Your task to perform on an android device: delete browsing data in the chrome app Image 0: 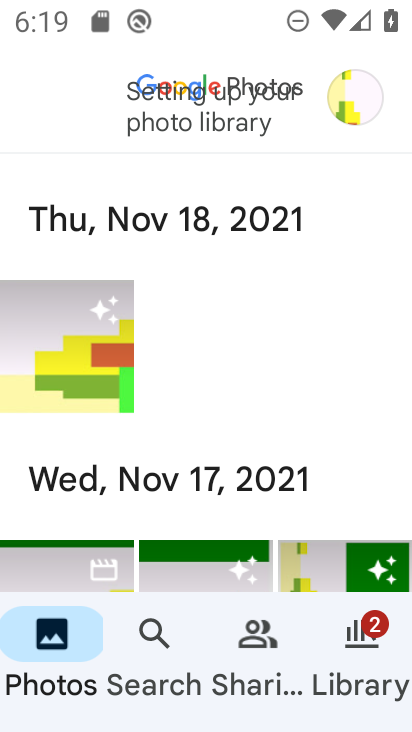
Step 0: press home button
Your task to perform on an android device: delete browsing data in the chrome app Image 1: 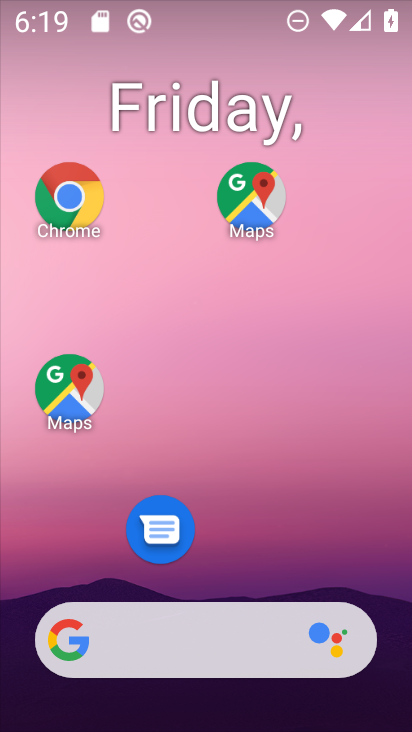
Step 1: click (56, 204)
Your task to perform on an android device: delete browsing data in the chrome app Image 2: 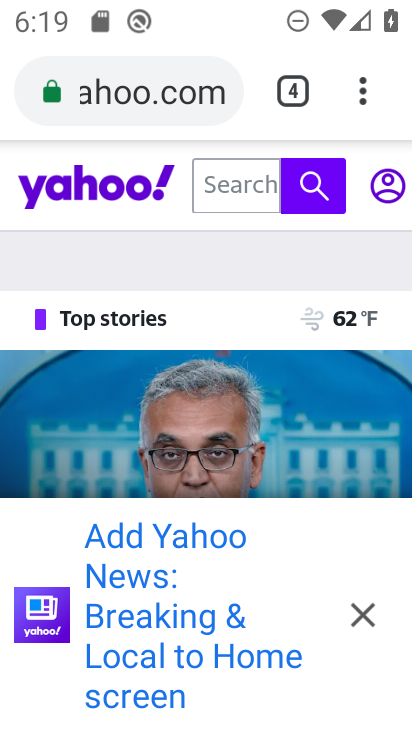
Step 2: click (68, 203)
Your task to perform on an android device: delete browsing data in the chrome app Image 3: 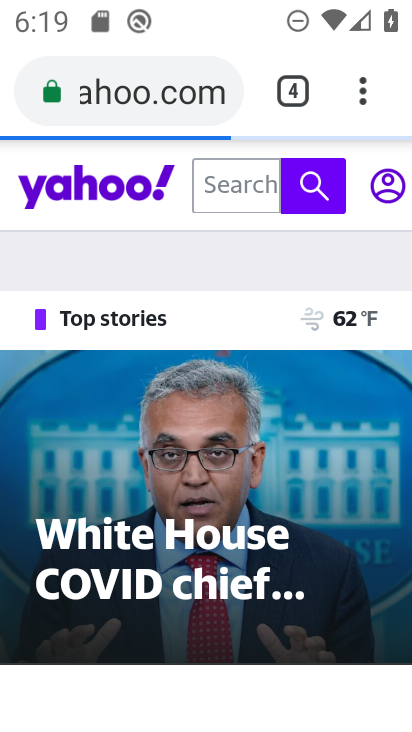
Step 3: click (359, 89)
Your task to perform on an android device: delete browsing data in the chrome app Image 4: 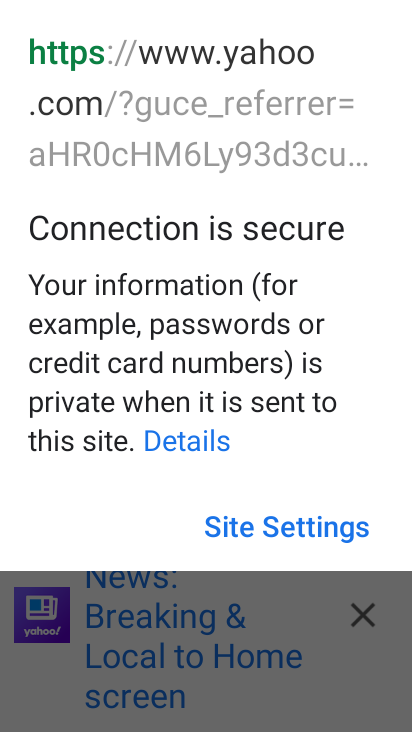
Step 4: click (214, 599)
Your task to perform on an android device: delete browsing data in the chrome app Image 5: 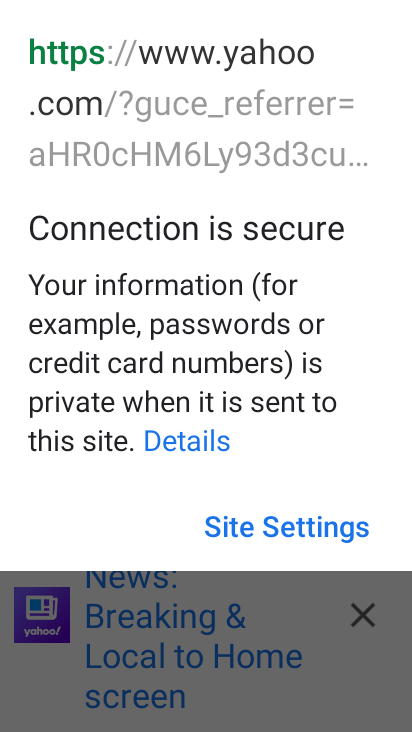
Step 5: click (324, 669)
Your task to perform on an android device: delete browsing data in the chrome app Image 6: 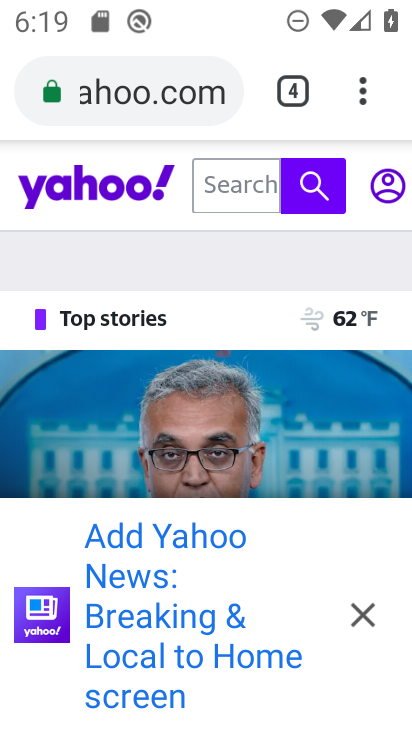
Step 6: click (362, 98)
Your task to perform on an android device: delete browsing data in the chrome app Image 7: 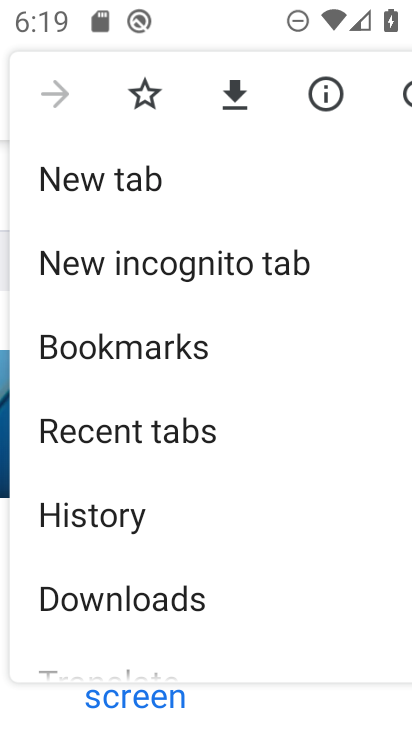
Step 7: drag from (228, 620) to (205, 263)
Your task to perform on an android device: delete browsing data in the chrome app Image 8: 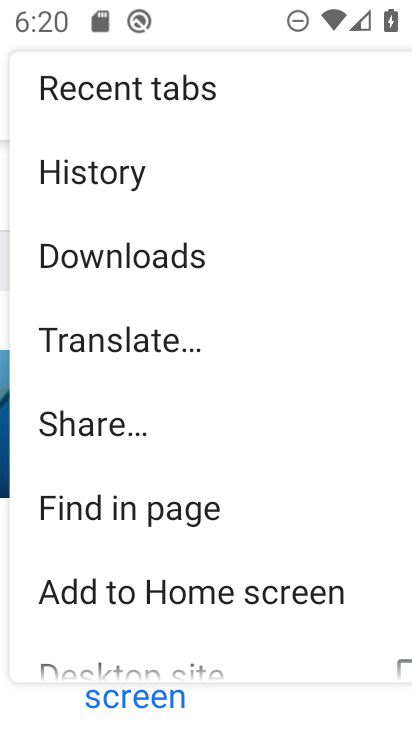
Step 8: drag from (249, 629) to (245, 221)
Your task to perform on an android device: delete browsing data in the chrome app Image 9: 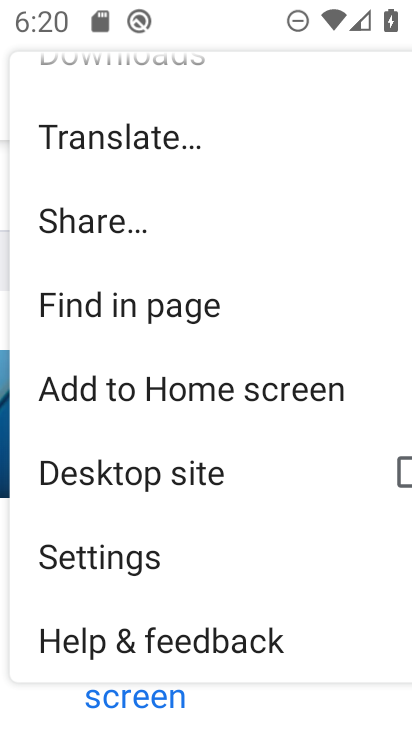
Step 9: drag from (210, 224) to (182, 595)
Your task to perform on an android device: delete browsing data in the chrome app Image 10: 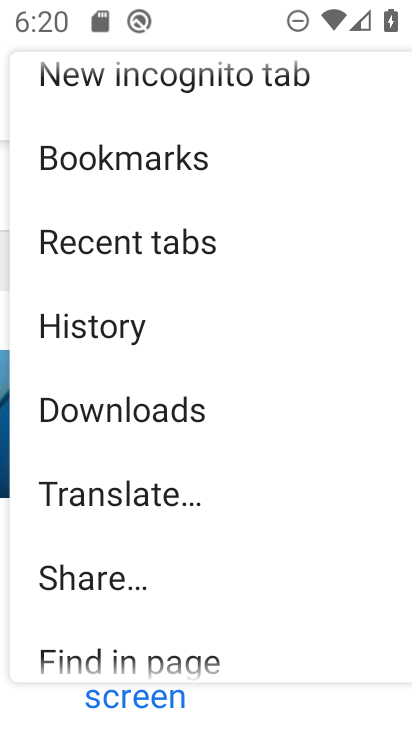
Step 10: drag from (253, 211) to (207, 637)
Your task to perform on an android device: delete browsing data in the chrome app Image 11: 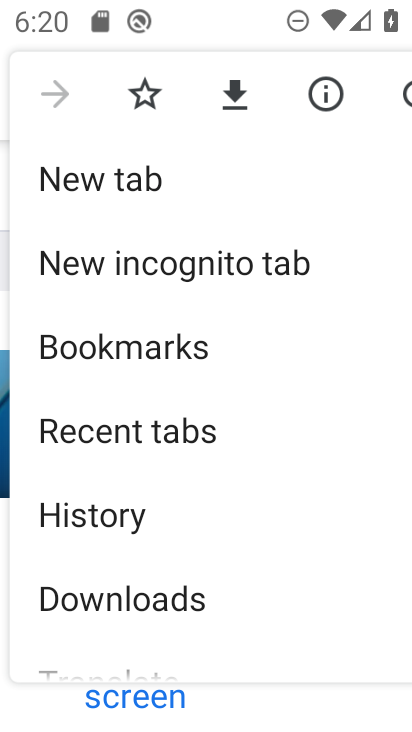
Step 11: click (117, 528)
Your task to perform on an android device: delete browsing data in the chrome app Image 12: 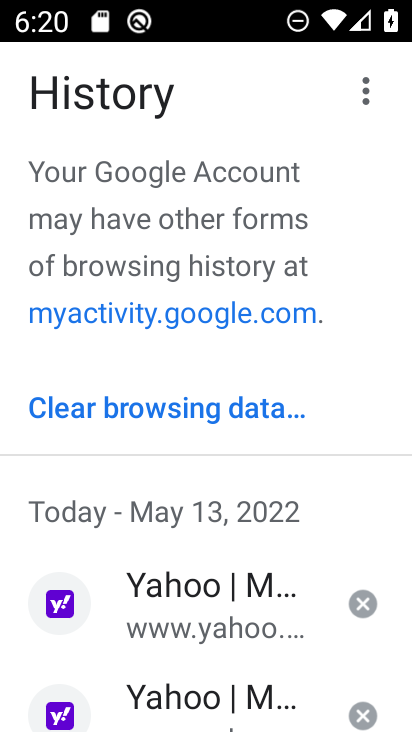
Step 12: click (166, 413)
Your task to perform on an android device: delete browsing data in the chrome app Image 13: 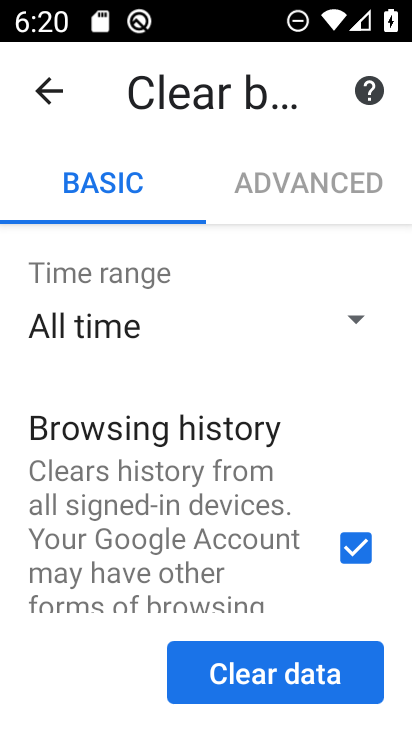
Step 13: click (250, 668)
Your task to perform on an android device: delete browsing data in the chrome app Image 14: 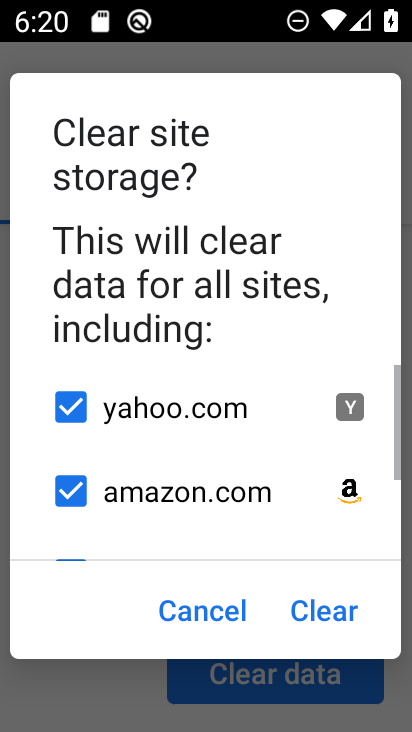
Step 14: click (318, 609)
Your task to perform on an android device: delete browsing data in the chrome app Image 15: 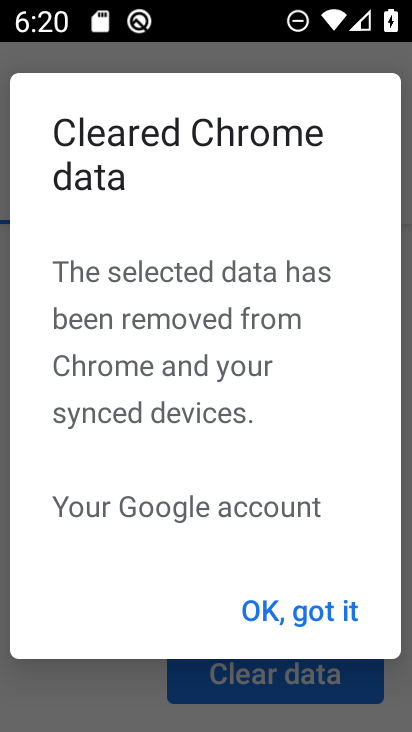
Step 15: click (333, 615)
Your task to perform on an android device: delete browsing data in the chrome app Image 16: 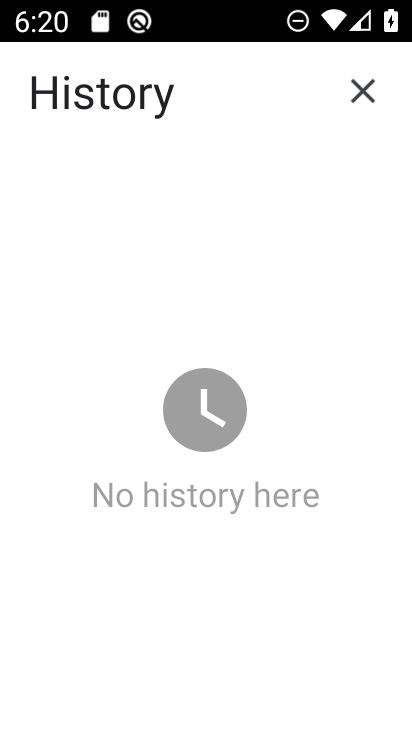
Step 16: task complete